Your task to perform on an android device: Open the stopwatch Image 0: 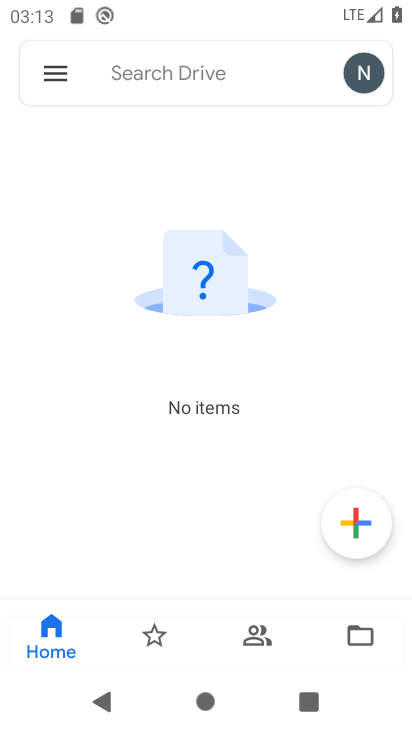
Step 0: press home button
Your task to perform on an android device: Open the stopwatch Image 1: 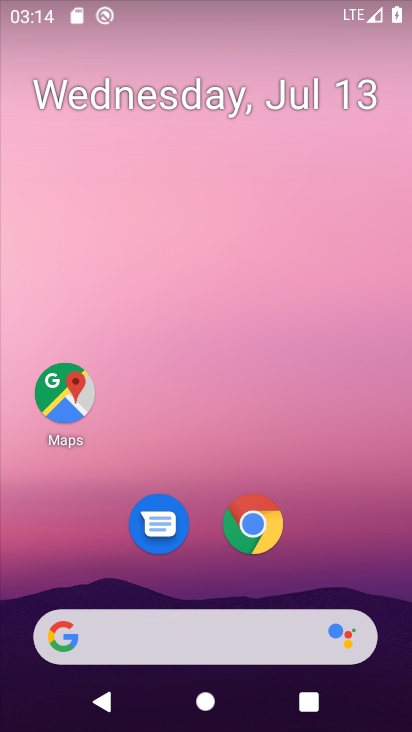
Step 1: drag from (322, 543) to (317, 61)
Your task to perform on an android device: Open the stopwatch Image 2: 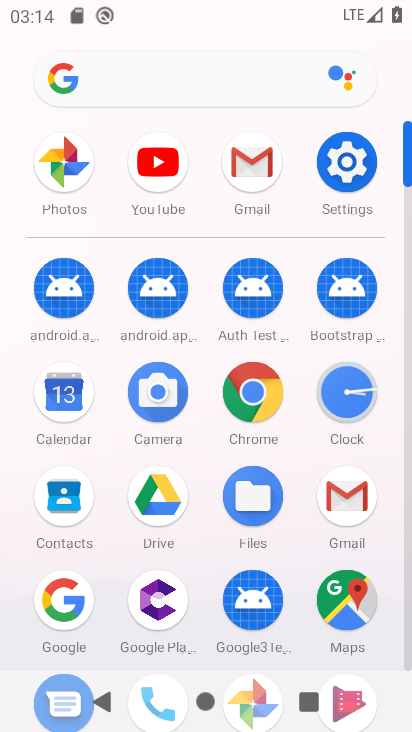
Step 2: click (338, 389)
Your task to perform on an android device: Open the stopwatch Image 3: 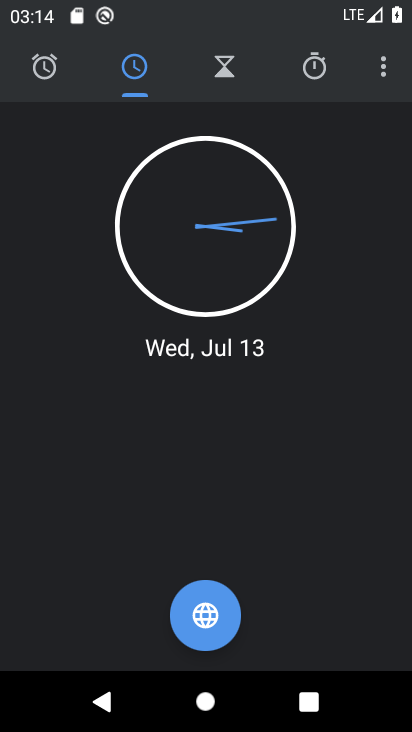
Step 3: click (307, 65)
Your task to perform on an android device: Open the stopwatch Image 4: 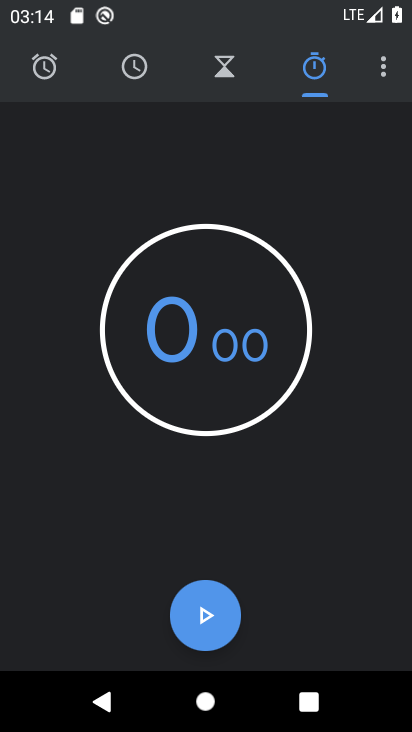
Step 4: task complete